Your task to perform on an android device: Open eBay Image 0: 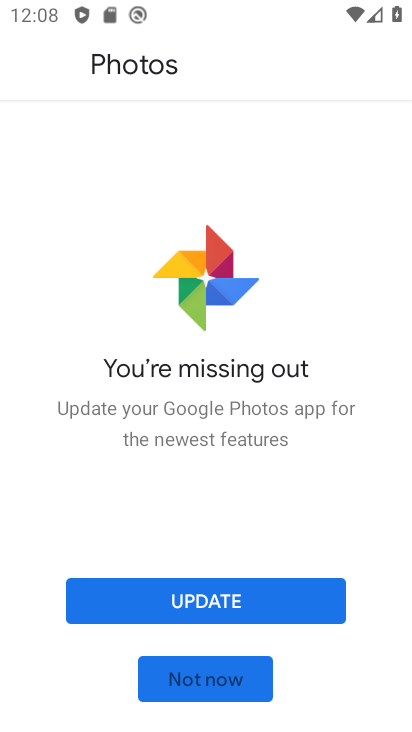
Step 0: press home button
Your task to perform on an android device: Open eBay Image 1: 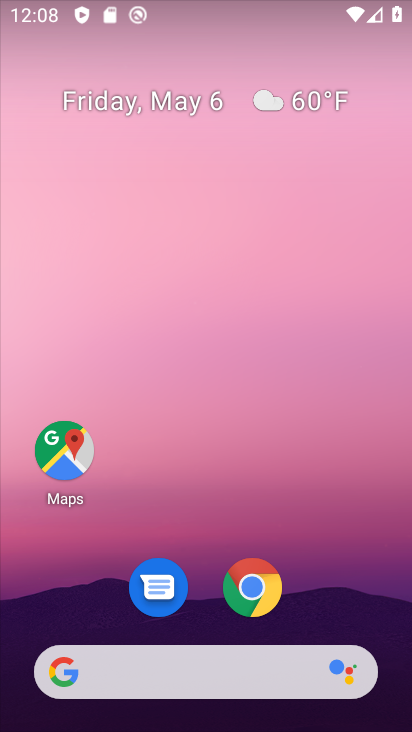
Step 1: click (259, 580)
Your task to perform on an android device: Open eBay Image 2: 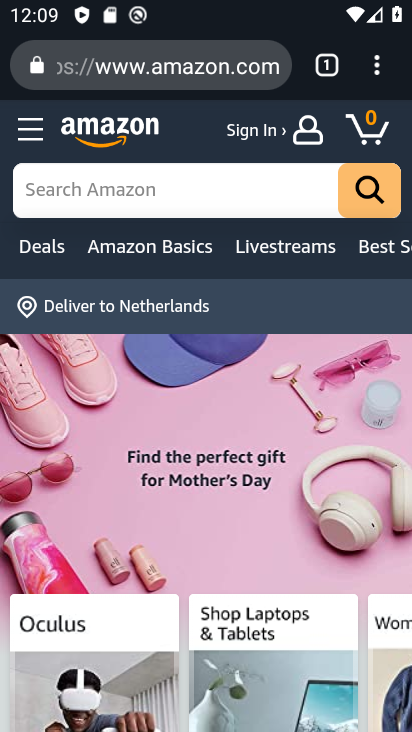
Step 2: click (276, 68)
Your task to perform on an android device: Open eBay Image 3: 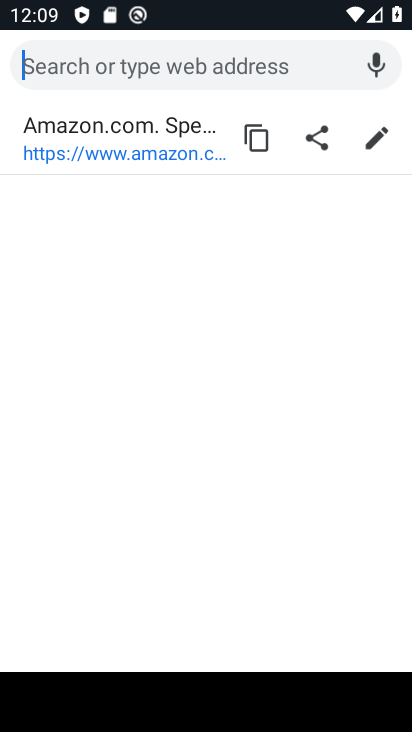
Step 3: type "eBay"
Your task to perform on an android device: Open eBay Image 4: 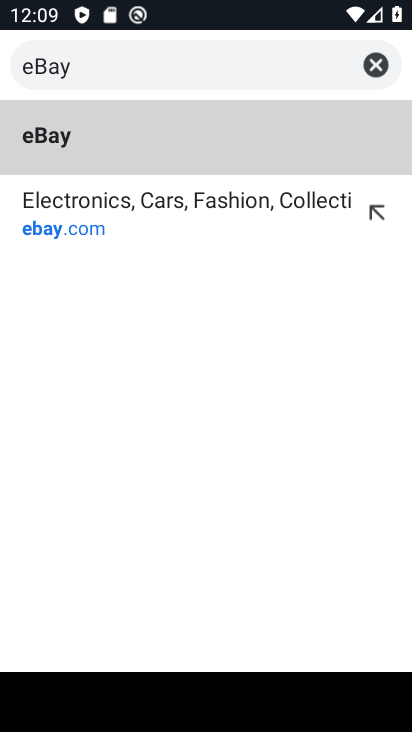
Step 4: click (59, 141)
Your task to perform on an android device: Open eBay Image 5: 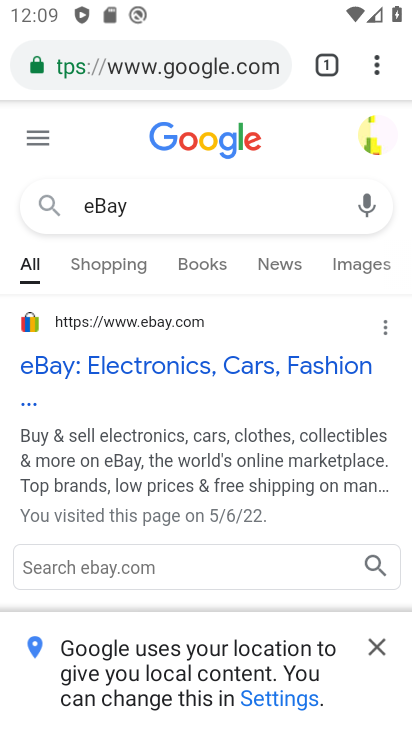
Step 5: task complete